Your task to perform on an android device: check out phone information Image 0: 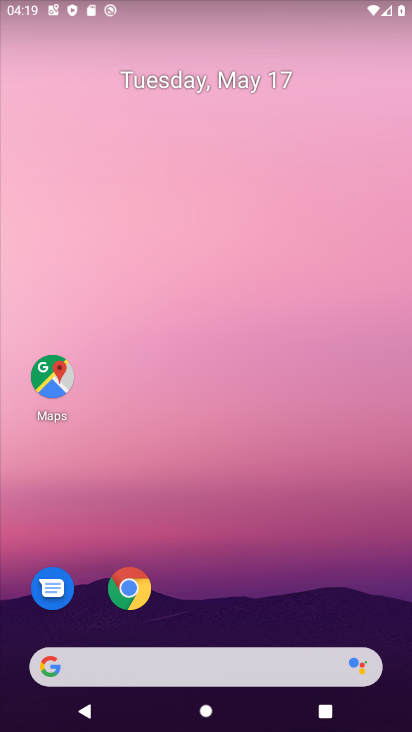
Step 0: drag from (260, 593) to (253, 153)
Your task to perform on an android device: check out phone information Image 1: 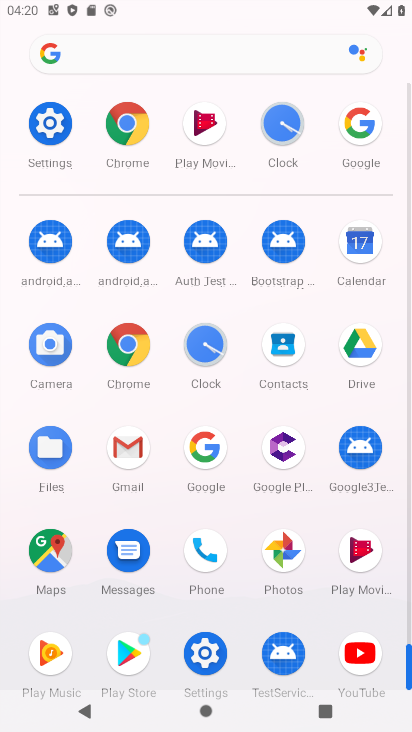
Step 1: click (203, 653)
Your task to perform on an android device: check out phone information Image 2: 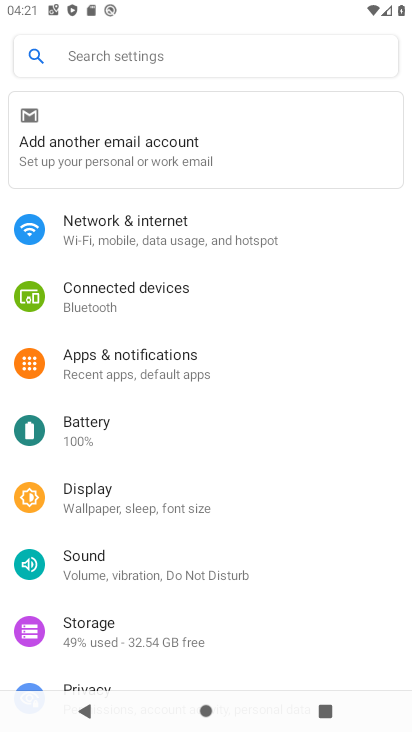
Step 2: drag from (135, 540) to (203, 455)
Your task to perform on an android device: check out phone information Image 3: 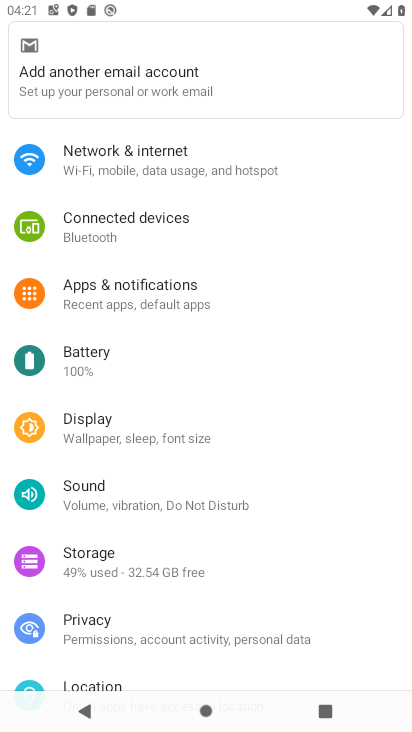
Step 3: drag from (107, 604) to (206, 490)
Your task to perform on an android device: check out phone information Image 4: 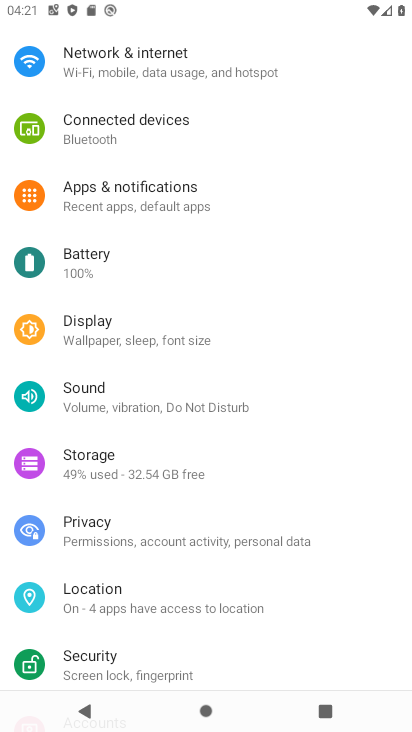
Step 4: drag from (126, 579) to (210, 483)
Your task to perform on an android device: check out phone information Image 5: 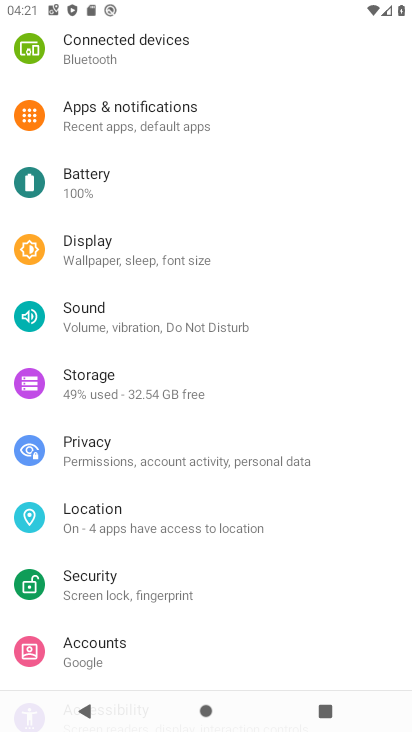
Step 5: drag from (148, 557) to (200, 462)
Your task to perform on an android device: check out phone information Image 6: 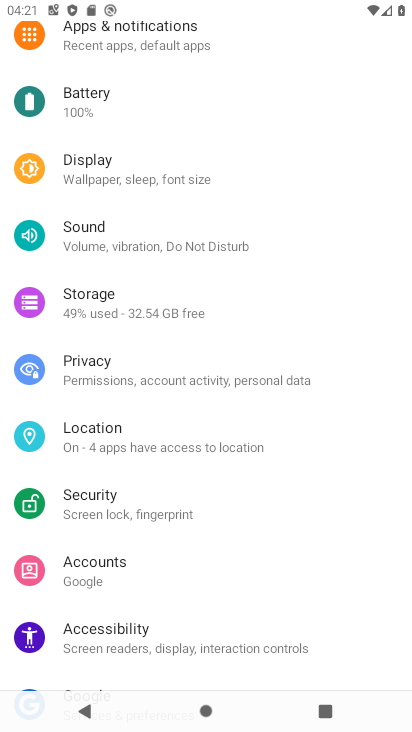
Step 6: drag from (149, 551) to (200, 460)
Your task to perform on an android device: check out phone information Image 7: 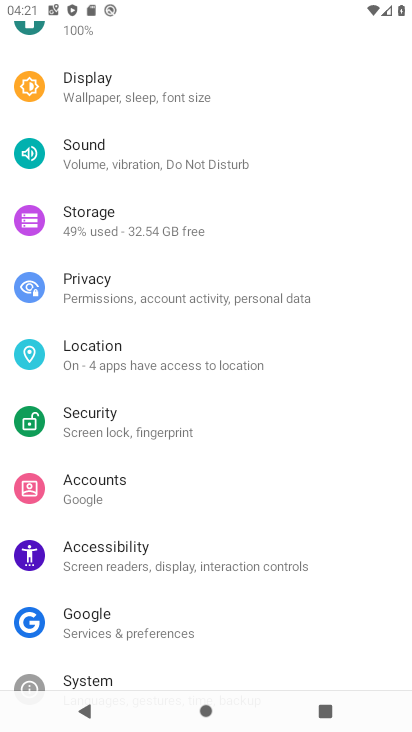
Step 7: drag from (121, 591) to (188, 504)
Your task to perform on an android device: check out phone information Image 8: 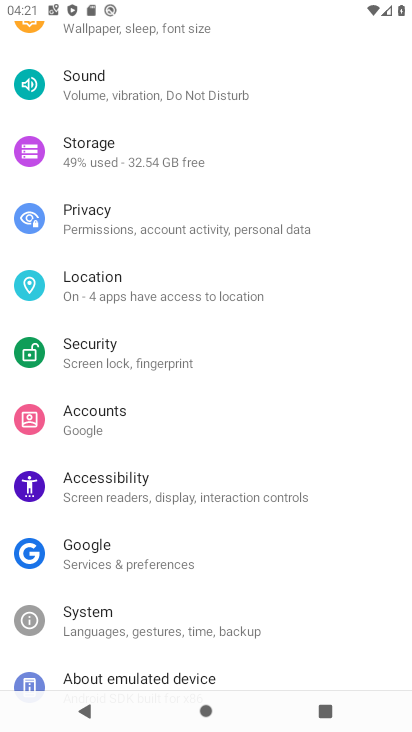
Step 8: drag from (134, 585) to (195, 505)
Your task to perform on an android device: check out phone information Image 9: 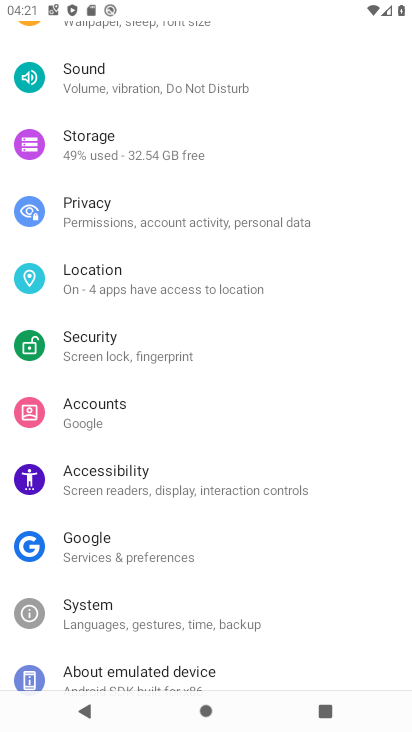
Step 9: drag from (143, 588) to (166, 557)
Your task to perform on an android device: check out phone information Image 10: 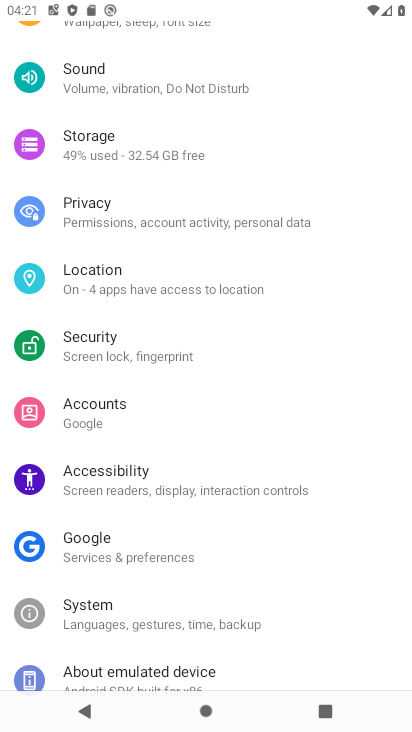
Step 10: click (131, 670)
Your task to perform on an android device: check out phone information Image 11: 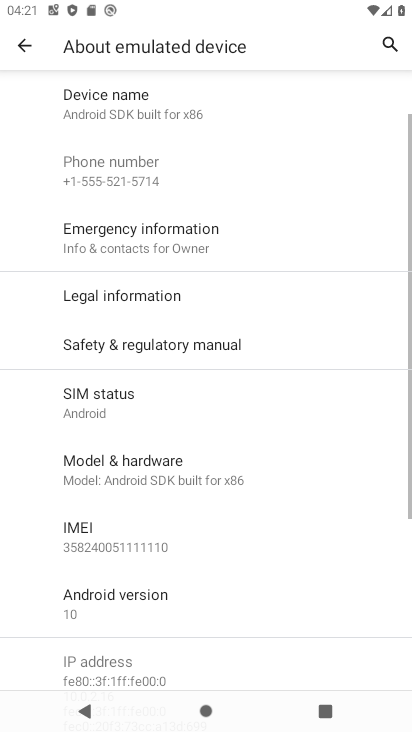
Step 11: task complete